Your task to perform on an android device: turn on translation in the chrome app Image 0: 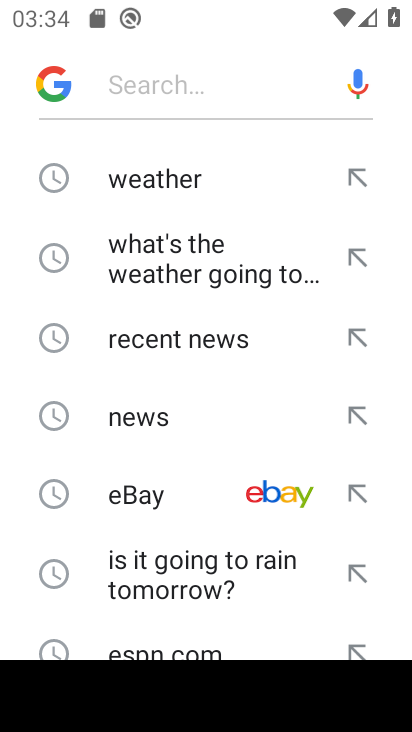
Step 0: press home button
Your task to perform on an android device: turn on translation in the chrome app Image 1: 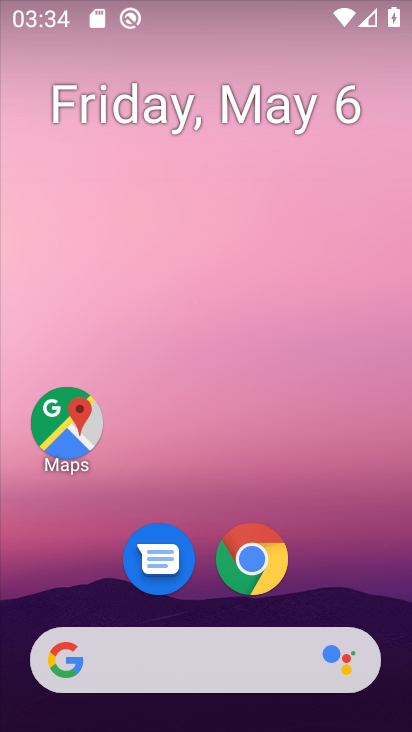
Step 1: drag from (246, 612) to (175, 10)
Your task to perform on an android device: turn on translation in the chrome app Image 2: 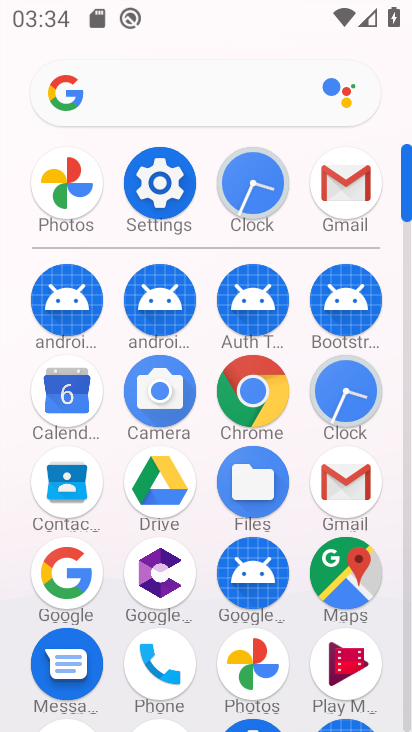
Step 2: click (245, 383)
Your task to perform on an android device: turn on translation in the chrome app Image 3: 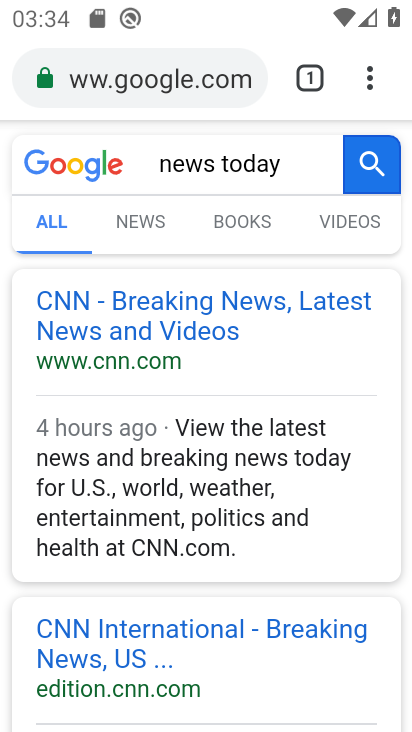
Step 3: click (374, 72)
Your task to perform on an android device: turn on translation in the chrome app Image 4: 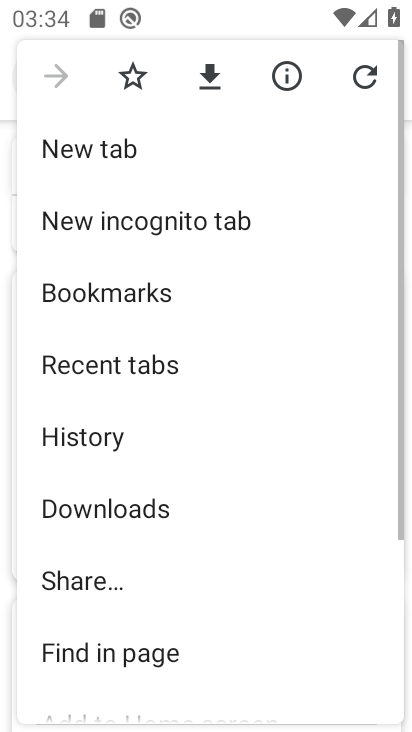
Step 4: drag from (158, 662) to (201, 149)
Your task to perform on an android device: turn on translation in the chrome app Image 5: 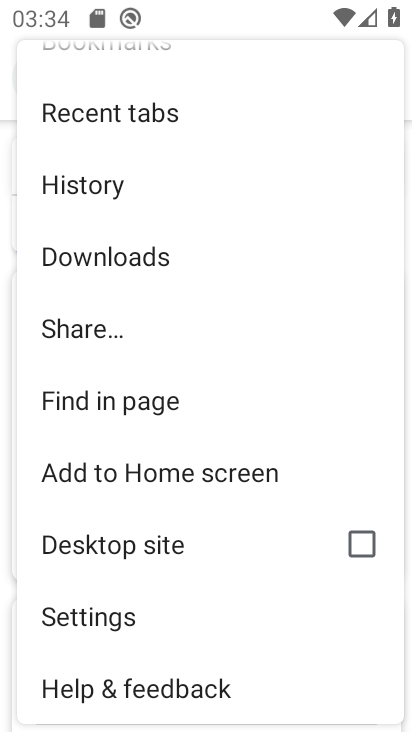
Step 5: click (102, 617)
Your task to perform on an android device: turn on translation in the chrome app Image 6: 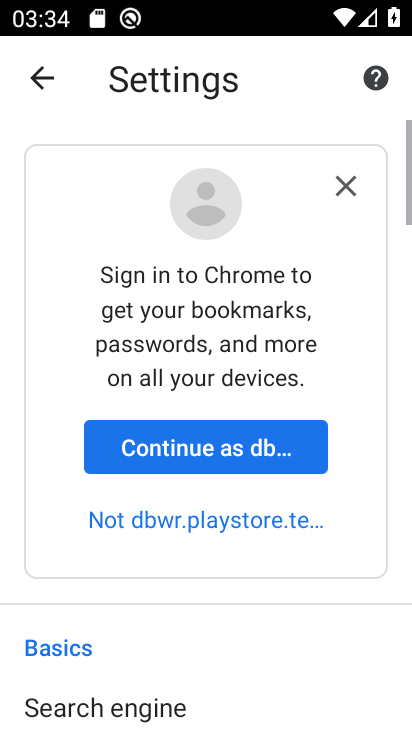
Step 6: drag from (168, 658) to (220, 109)
Your task to perform on an android device: turn on translation in the chrome app Image 7: 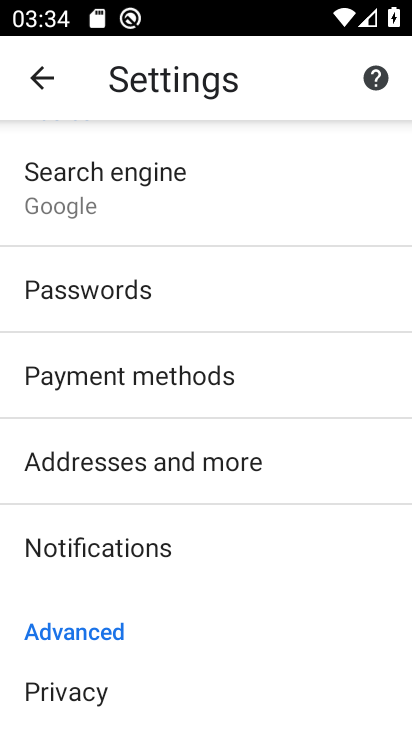
Step 7: drag from (130, 676) to (172, 145)
Your task to perform on an android device: turn on translation in the chrome app Image 8: 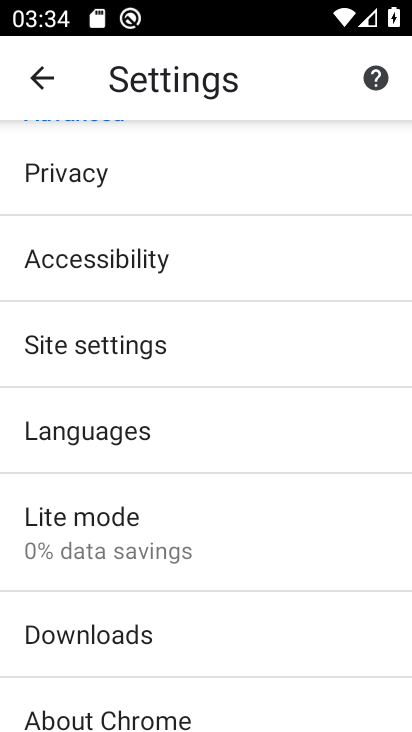
Step 8: drag from (114, 667) to (175, 185)
Your task to perform on an android device: turn on translation in the chrome app Image 9: 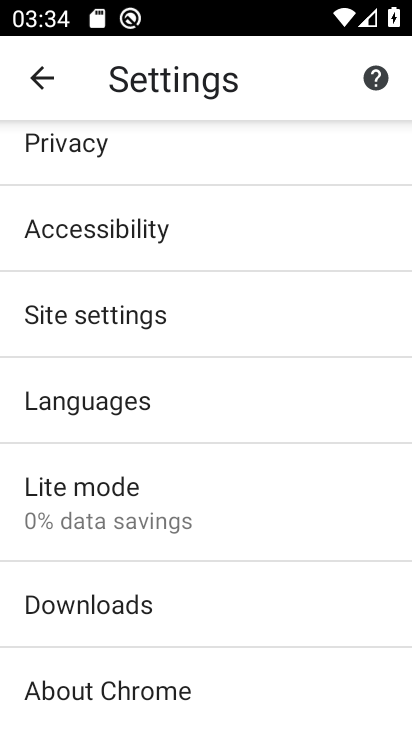
Step 9: click (127, 318)
Your task to perform on an android device: turn on translation in the chrome app Image 10: 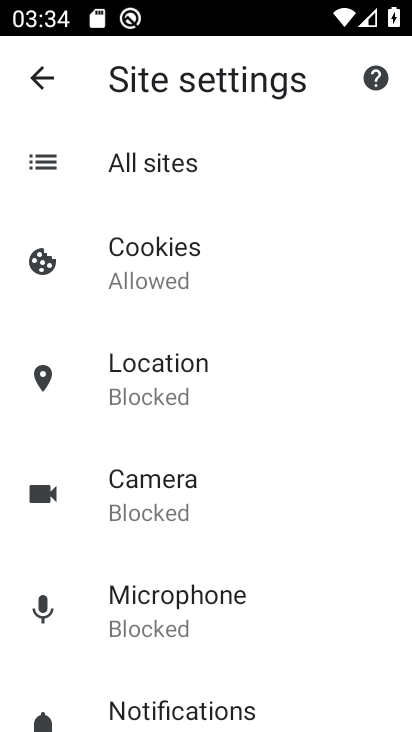
Step 10: press back button
Your task to perform on an android device: turn on translation in the chrome app Image 11: 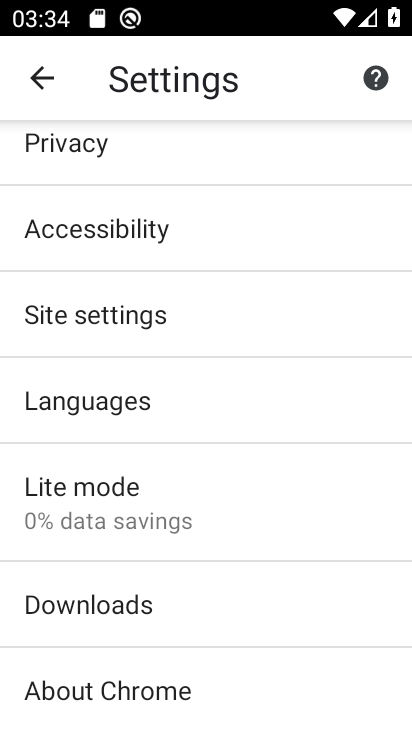
Step 11: click (94, 407)
Your task to perform on an android device: turn on translation in the chrome app Image 12: 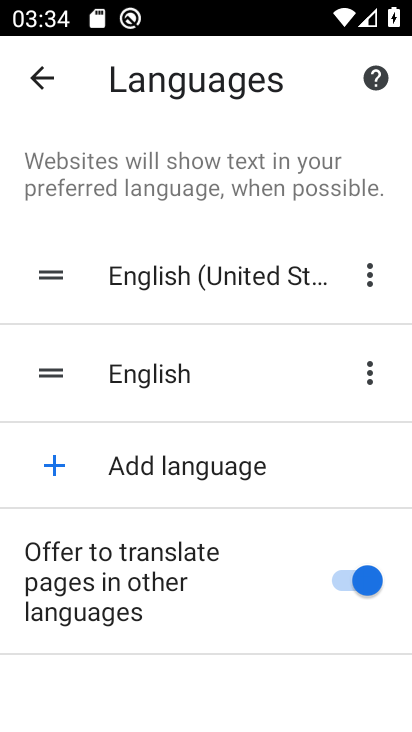
Step 12: task complete